Your task to perform on an android device: delete browsing data in the chrome app Image 0: 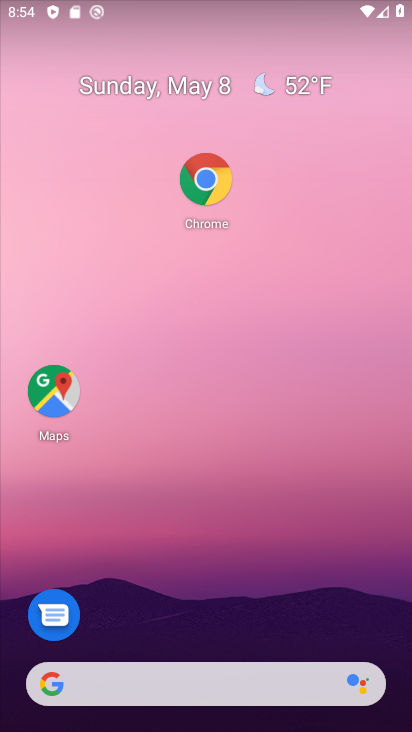
Step 0: click (199, 178)
Your task to perform on an android device: delete browsing data in the chrome app Image 1: 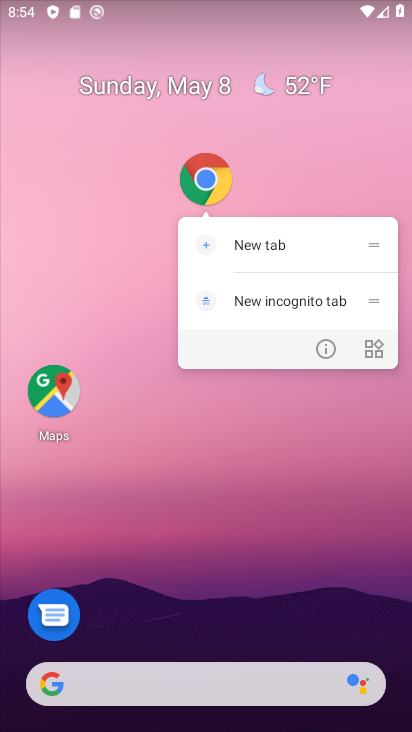
Step 1: click (123, 261)
Your task to perform on an android device: delete browsing data in the chrome app Image 2: 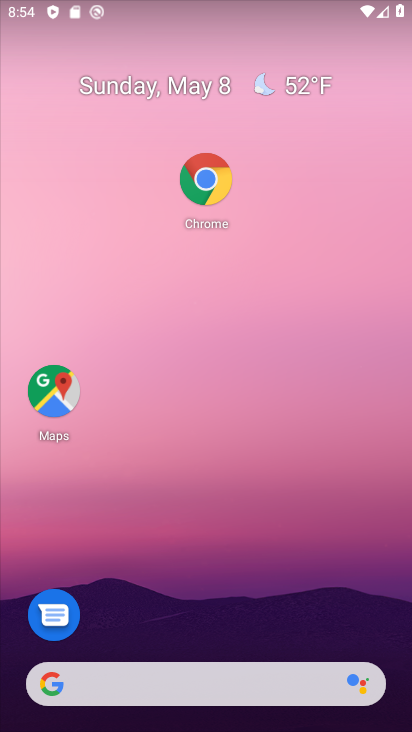
Step 2: click (87, 212)
Your task to perform on an android device: delete browsing data in the chrome app Image 3: 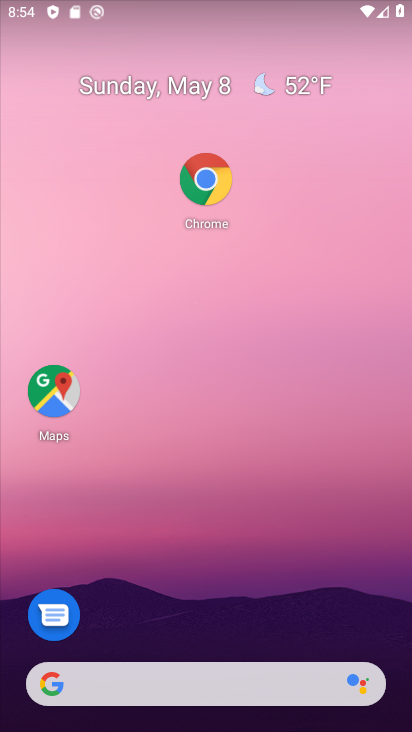
Step 3: click (204, 183)
Your task to perform on an android device: delete browsing data in the chrome app Image 4: 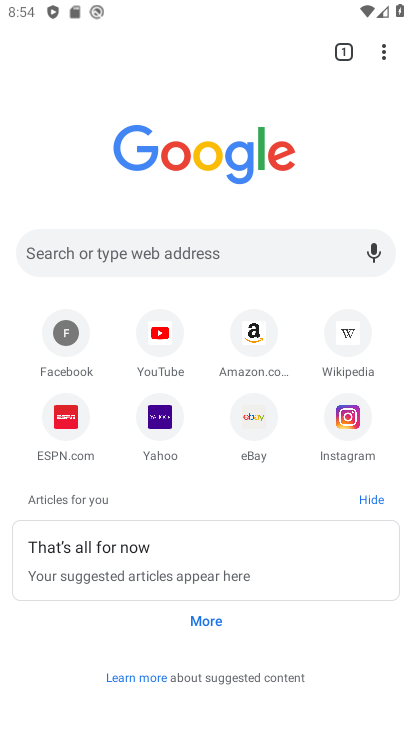
Step 4: click (386, 49)
Your task to perform on an android device: delete browsing data in the chrome app Image 5: 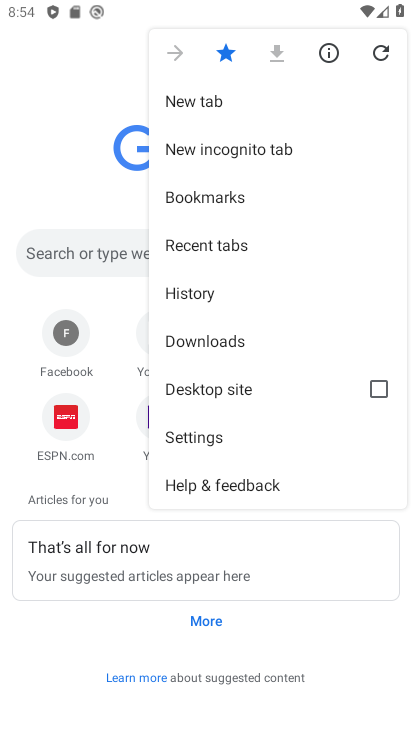
Step 5: click (198, 436)
Your task to perform on an android device: delete browsing data in the chrome app Image 6: 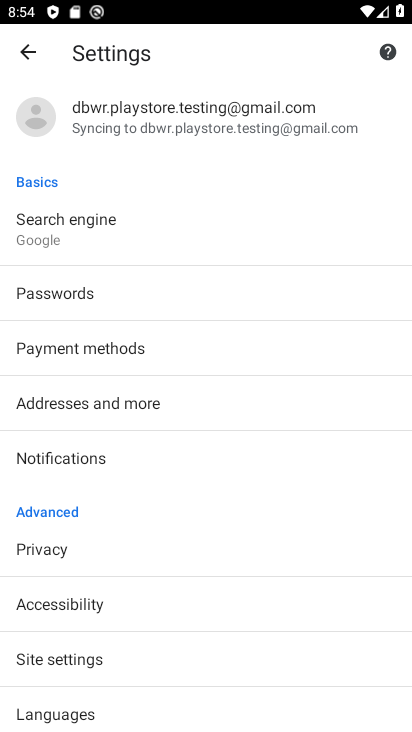
Step 6: click (64, 556)
Your task to perform on an android device: delete browsing data in the chrome app Image 7: 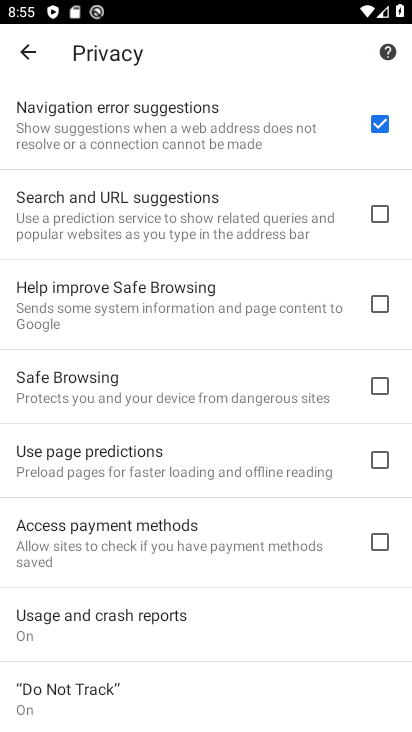
Step 7: drag from (165, 701) to (146, 296)
Your task to perform on an android device: delete browsing data in the chrome app Image 8: 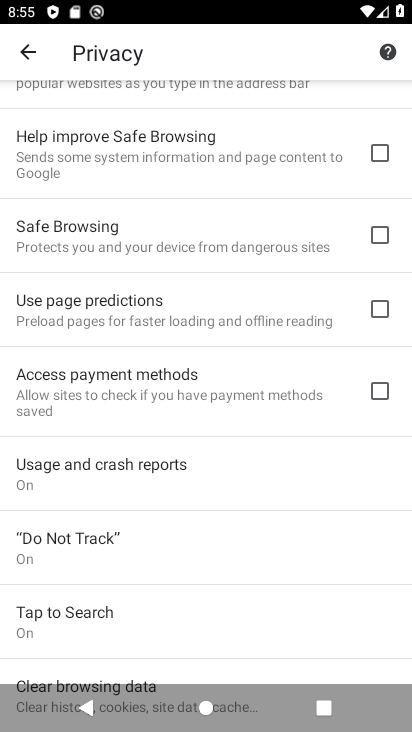
Step 8: drag from (87, 646) to (107, 304)
Your task to perform on an android device: delete browsing data in the chrome app Image 9: 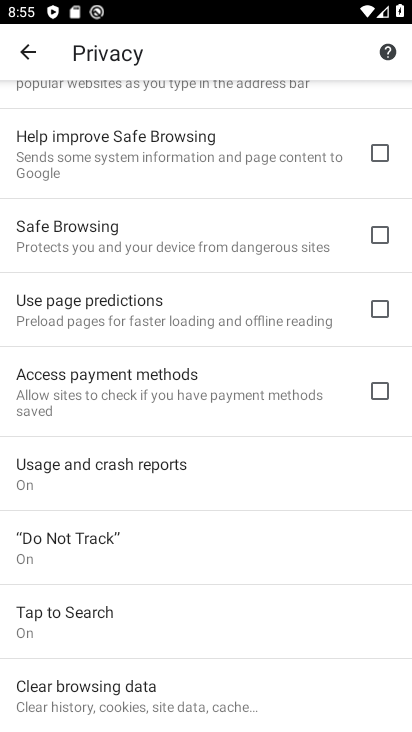
Step 9: click (58, 706)
Your task to perform on an android device: delete browsing data in the chrome app Image 10: 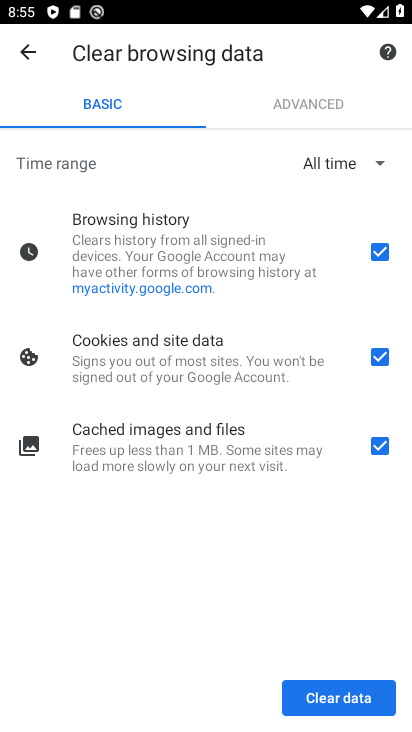
Step 10: click (348, 693)
Your task to perform on an android device: delete browsing data in the chrome app Image 11: 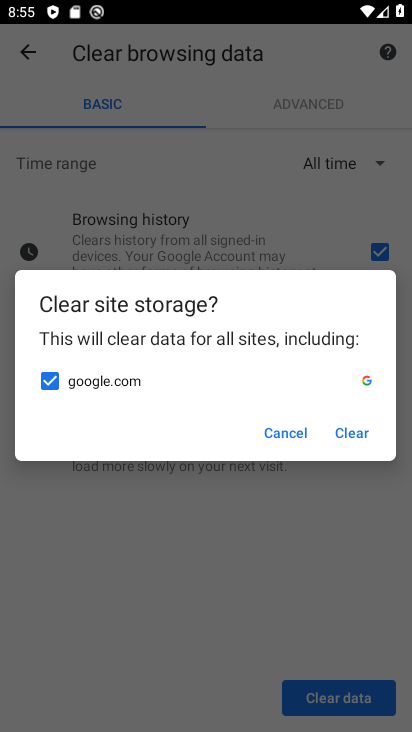
Step 11: click (361, 428)
Your task to perform on an android device: delete browsing data in the chrome app Image 12: 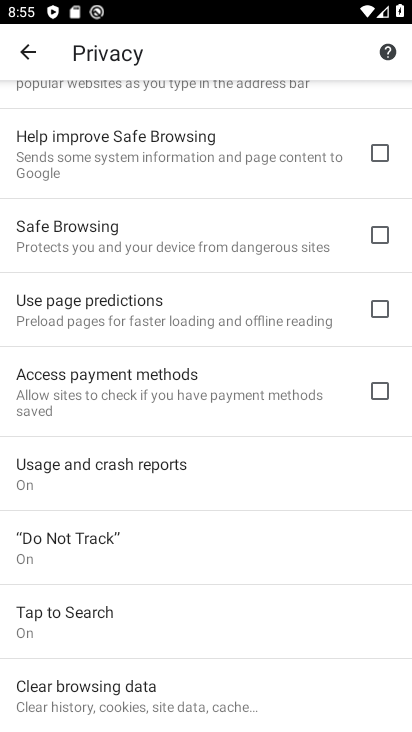
Step 12: task complete